Your task to perform on an android device: Go to Maps Image 0: 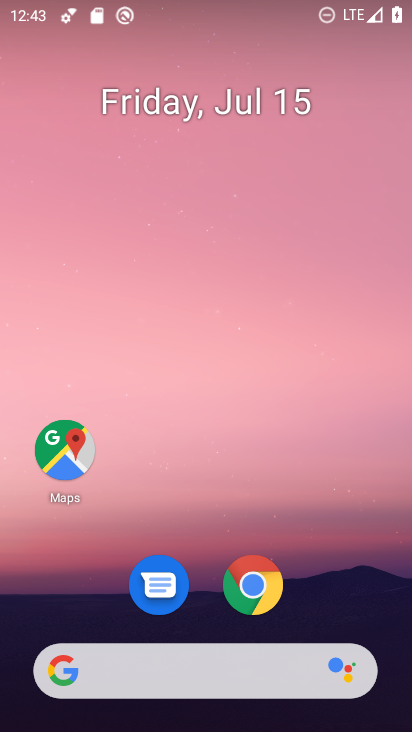
Step 0: click (71, 446)
Your task to perform on an android device: Go to Maps Image 1: 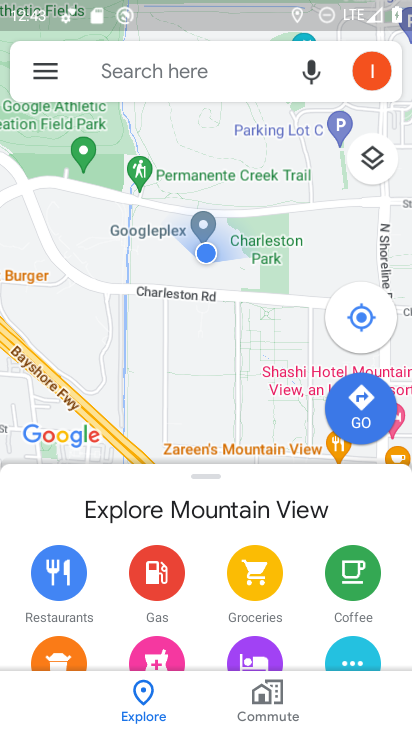
Step 1: task complete